Your task to perform on an android device: Search for razer kraken on target, select the first entry, add it to the cart, then select checkout. Image 0: 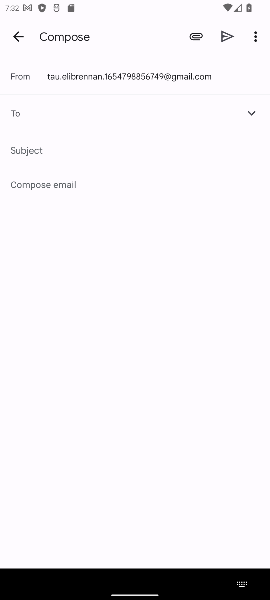
Step 0: press home button
Your task to perform on an android device: Search for razer kraken on target, select the first entry, add it to the cart, then select checkout. Image 1: 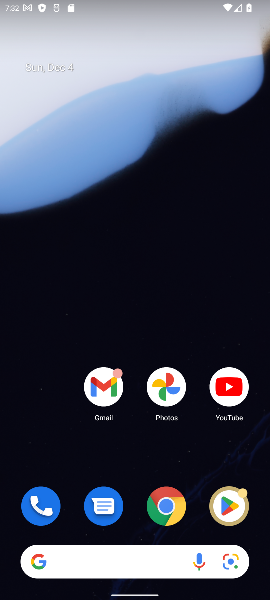
Step 1: click (169, 498)
Your task to perform on an android device: Search for razer kraken on target, select the first entry, add it to the cart, then select checkout. Image 2: 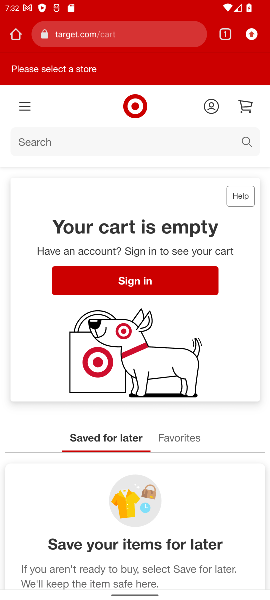
Step 2: click (143, 141)
Your task to perform on an android device: Search for razer kraken on target, select the first entry, add it to the cart, then select checkout. Image 3: 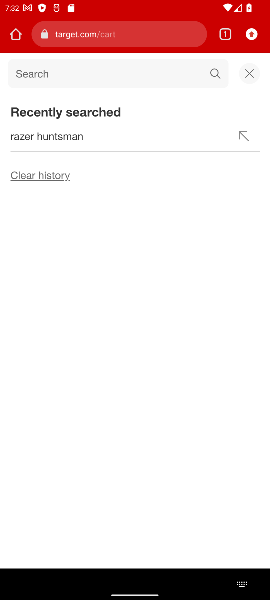
Step 3: type "razer kraken"
Your task to perform on an android device: Search for razer kraken on target, select the first entry, add it to the cart, then select checkout. Image 4: 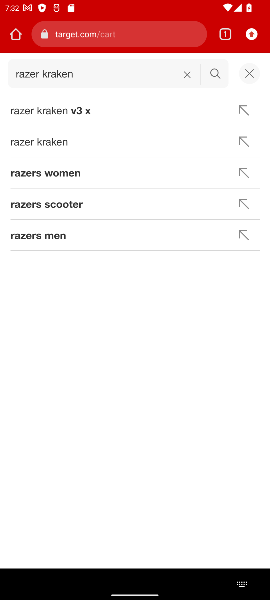
Step 4: click (211, 78)
Your task to perform on an android device: Search for razer kraken on target, select the first entry, add it to the cart, then select checkout. Image 5: 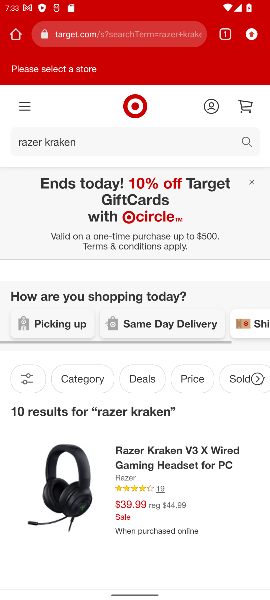
Step 5: drag from (191, 330) to (182, 175)
Your task to perform on an android device: Search for razer kraken on target, select the first entry, add it to the cart, then select checkout. Image 6: 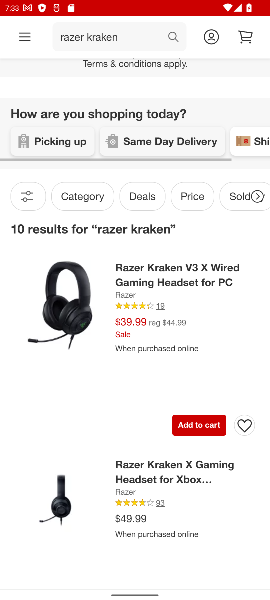
Step 6: click (189, 416)
Your task to perform on an android device: Search for razer kraken on target, select the first entry, add it to the cart, then select checkout. Image 7: 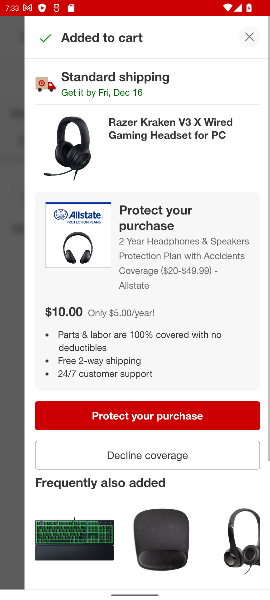
Step 7: click (249, 36)
Your task to perform on an android device: Search for razer kraken on target, select the first entry, add it to the cart, then select checkout. Image 8: 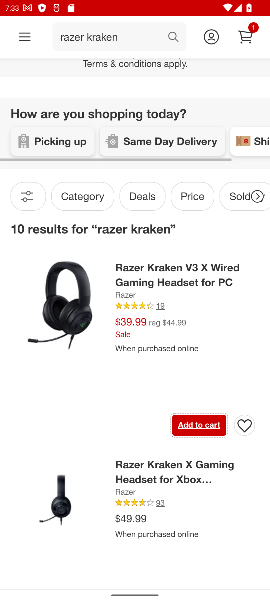
Step 8: click (249, 36)
Your task to perform on an android device: Search for razer kraken on target, select the first entry, add it to the cart, then select checkout. Image 9: 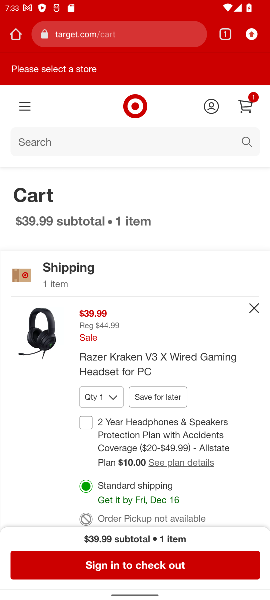
Step 9: click (94, 564)
Your task to perform on an android device: Search for razer kraken on target, select the first entry, add it to the cart, then select checkout. Image 10: 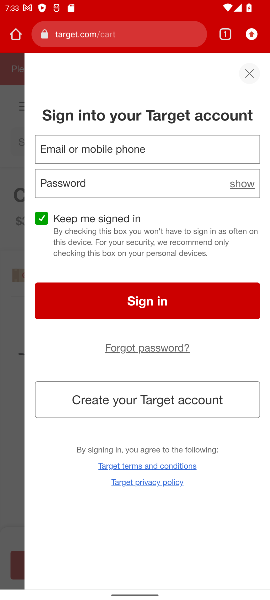
Step 10: task complete